Your task to perform on an android device: open a new tab in the chrome app Image 0: 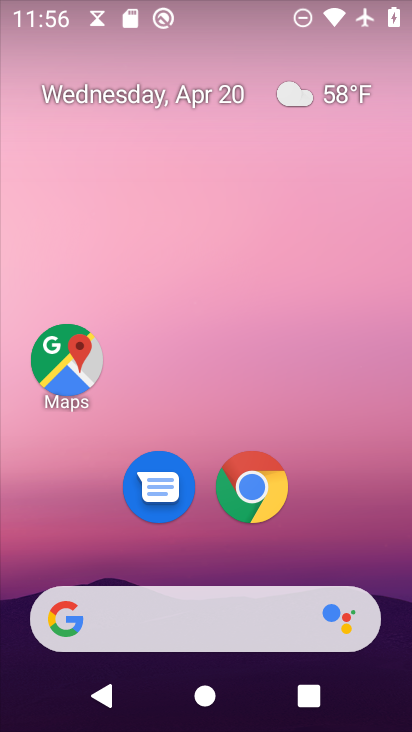
Step 0: drag from (379, 554) to (276, 13)
Your task to perform on an android device: open a new tab in the chrome app Image 1: 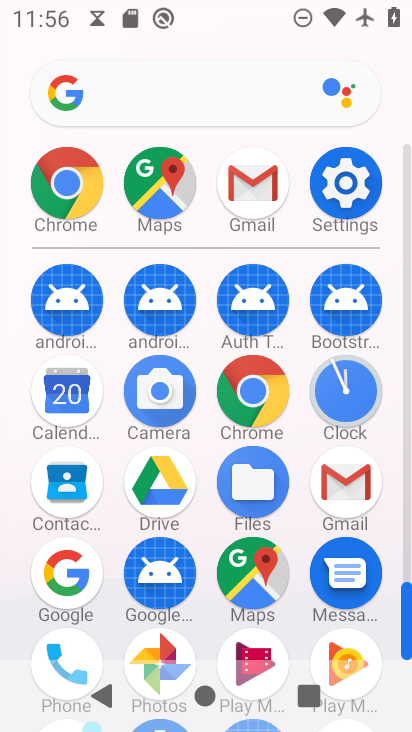
Step 1: click (247, 382)
Your task to perform on an android device: open a new tab in the chrome app Image 2: 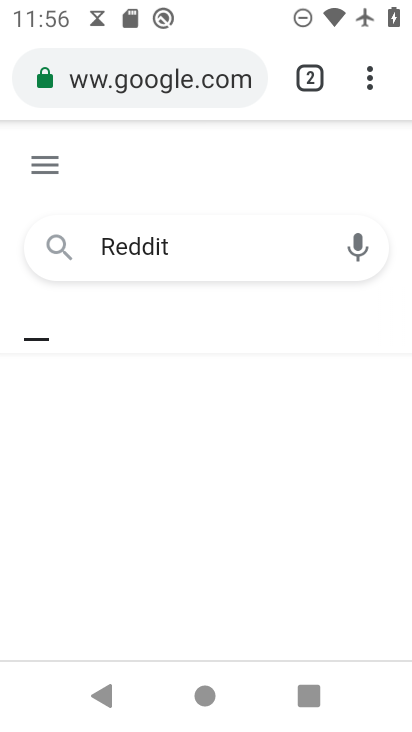
Step 2: task complete